Your task to perform on an android device: Open battery settings Image 0: 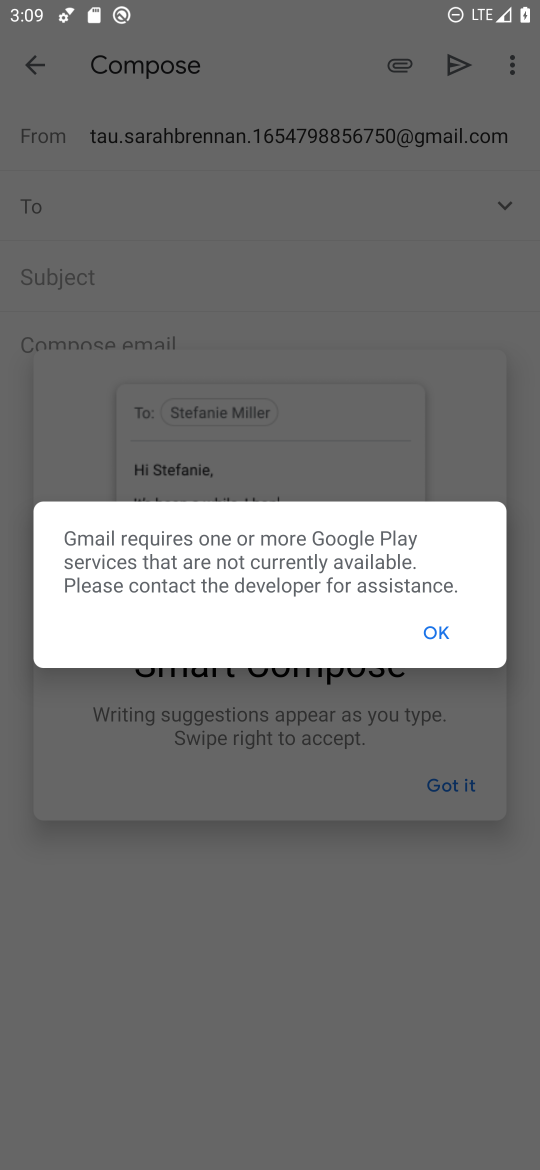
Step 0: press home button
Your task to perform on an android device: Open battery settings Image 1: 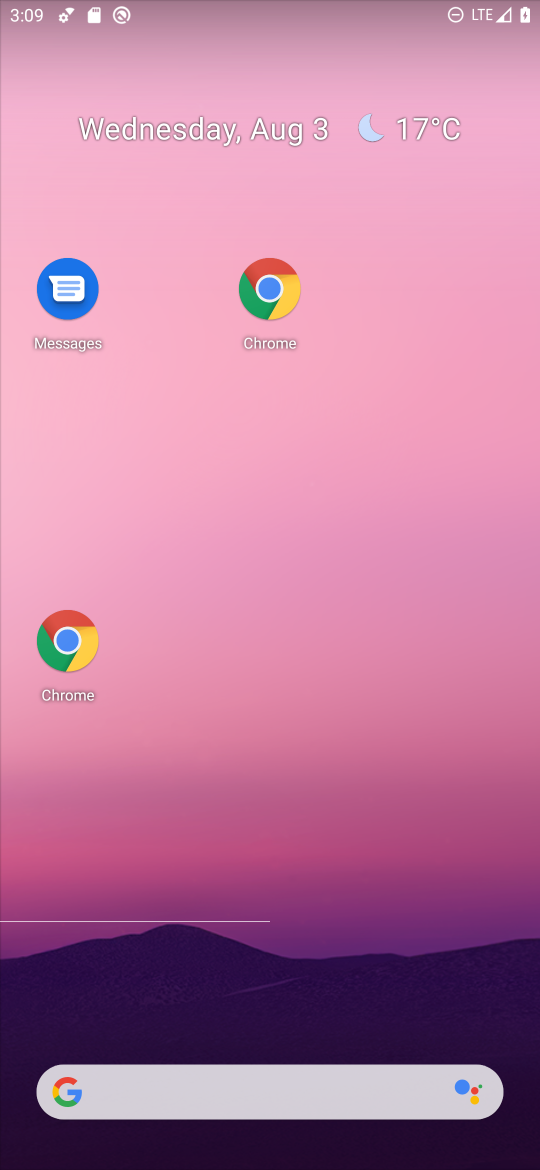
Step 1: drag from (294, 999) to (296, 264)
Your task to perform on an android device: Open battery settings Image 2: 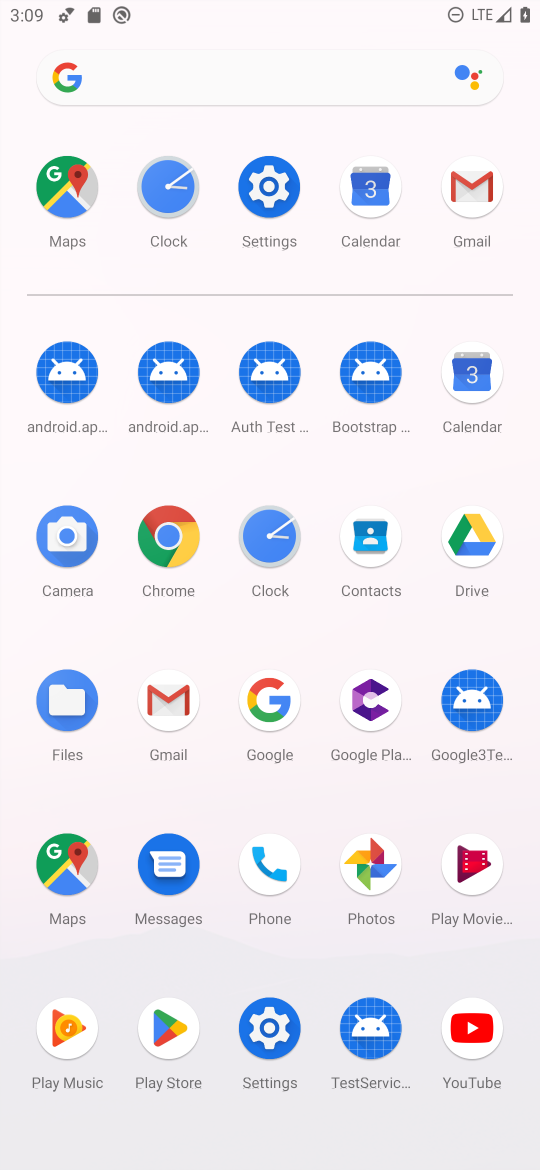
Step 2: click (272, 227)
Your task to perform on an android device: Open battery settings Image 3: 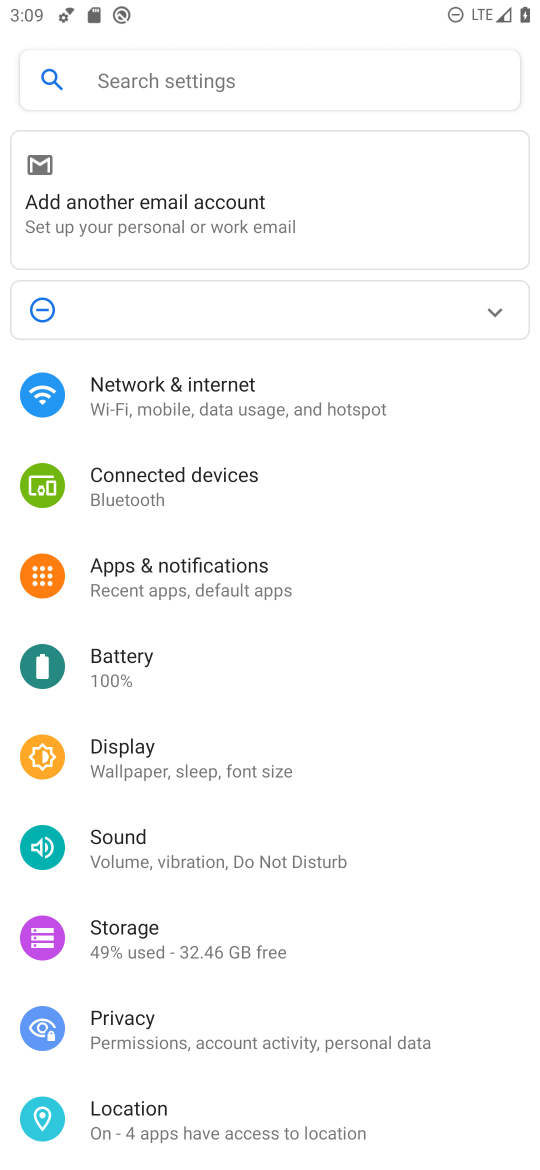
Step 3: click (187, 666)
Your task to perform on an android device: Open battery settings Image 4: 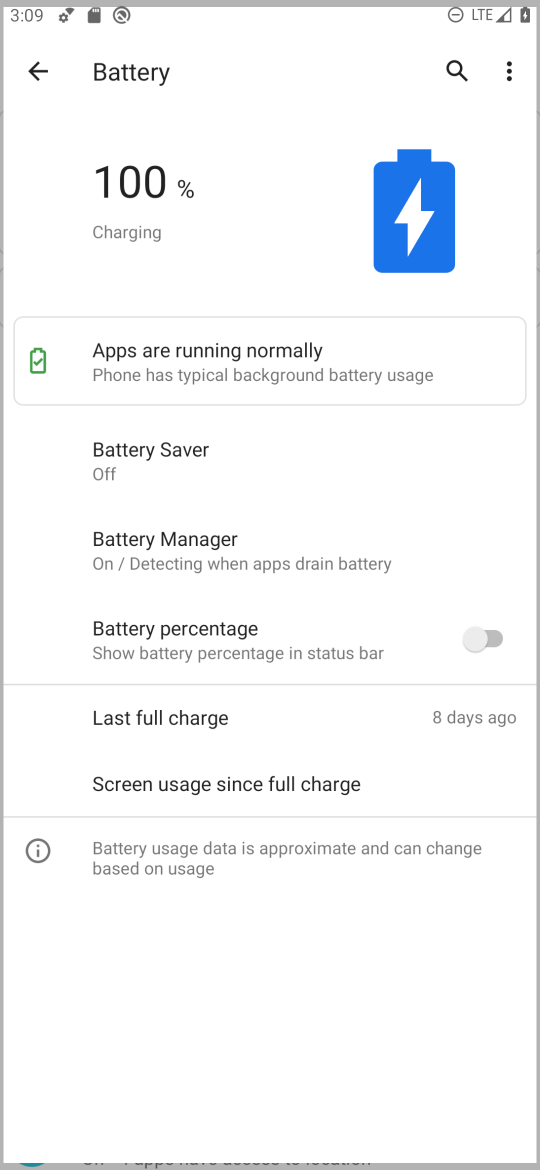
Step 4: task complete